Your task to perform on an android device: turn off wifi Image 0: 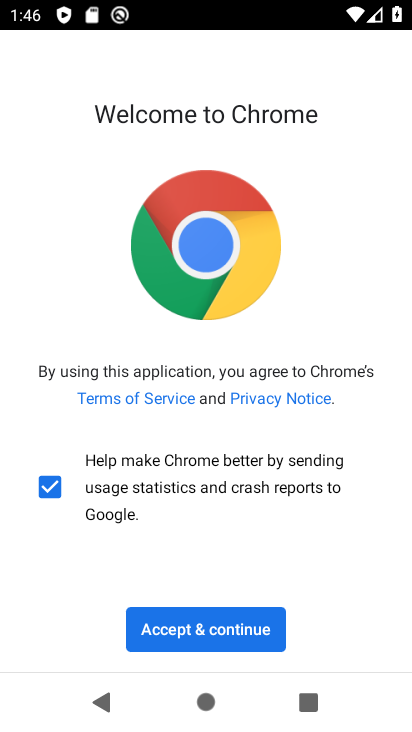
Step 0: drag from (150, 22) to (27, 728)
Your task to perform on an android device: turn off wifi Image 1: 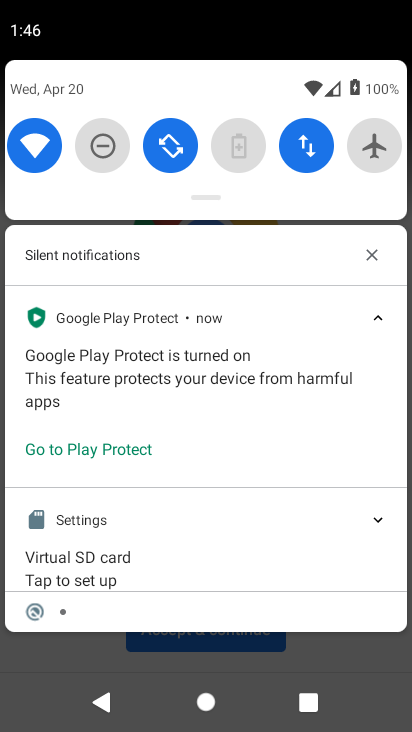
Step 1: click (43, 156)
Your task to perform on an android device: turn off wifi Image 2: 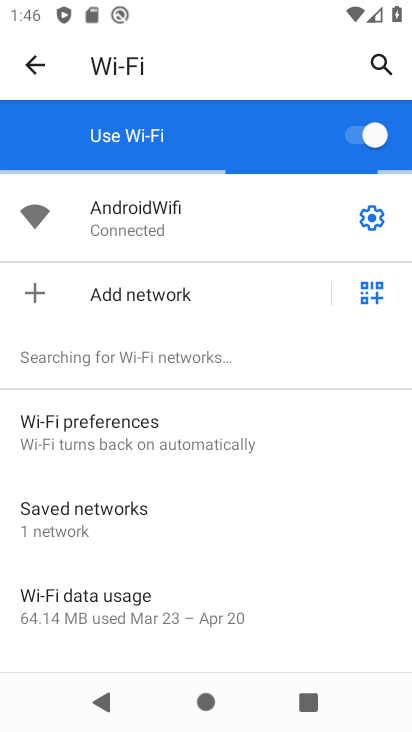
Step 2: click (356, 139)
Your task to perform on an android device: turn off wifi Image 3: 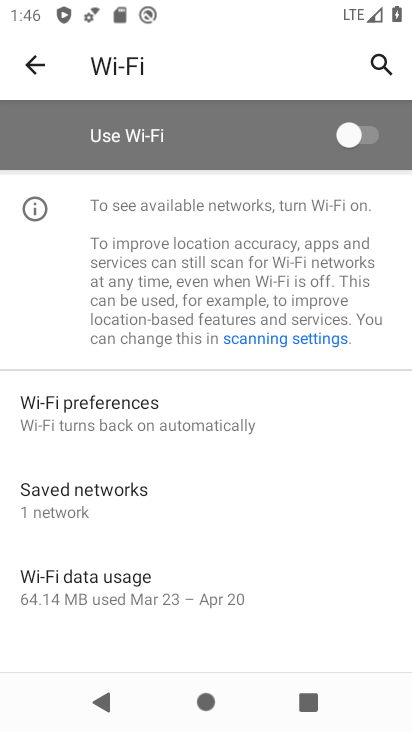
Step 3: task complete